Your task to perform on an android device: Open the map Image 0: 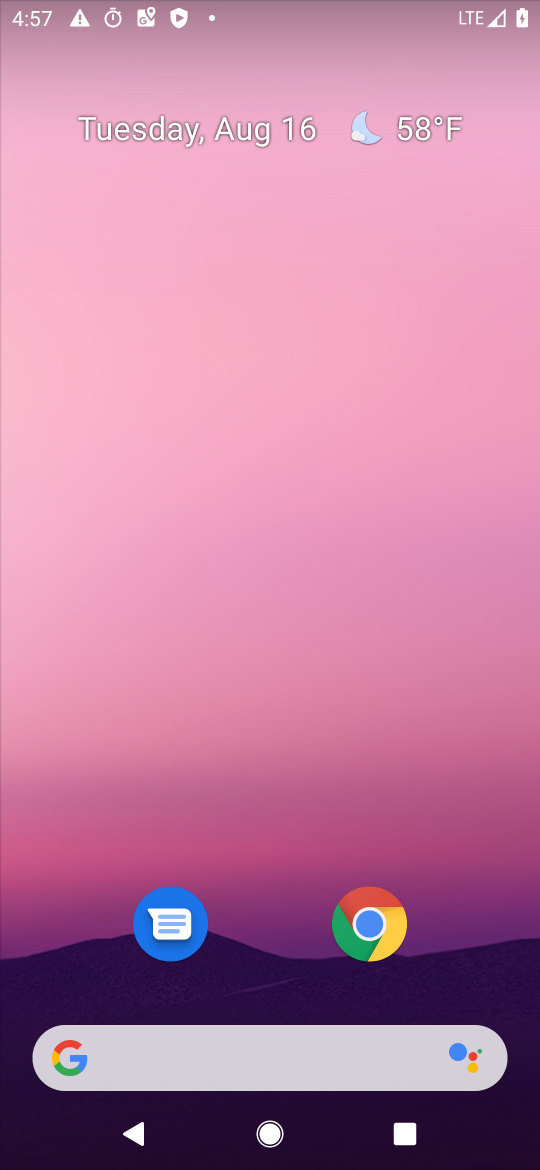
Step 0: drag from (314, 881) to (386, 84)
Your task to perform on an android device: Open the map Image 1: 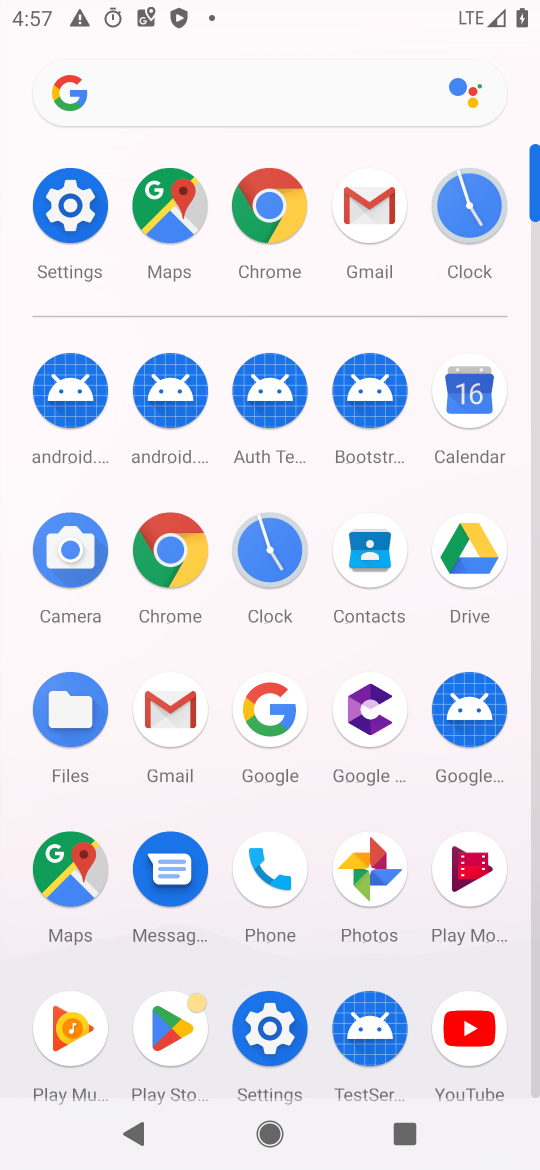
Step 1: click (167, 207)
Your task to perform on an android device: Open the map Image 2: 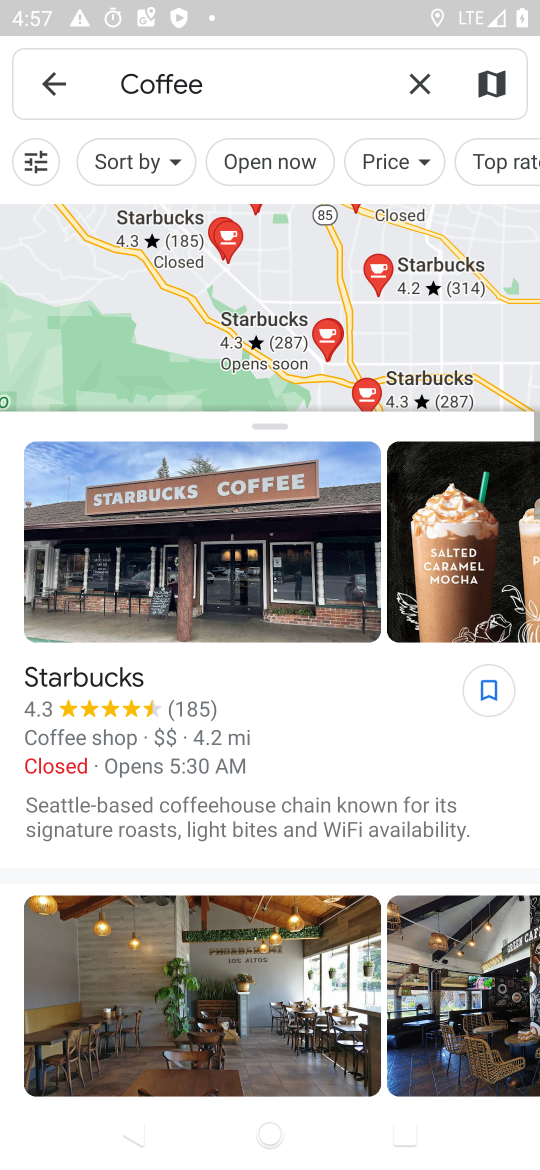
Step 2: task complete